Your task to perform on an android device: Go to calendar. Show me events next week Image 0: 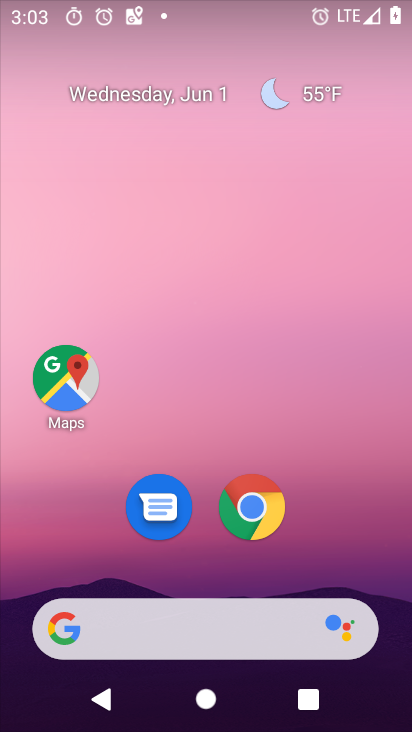
Step 0: drag from (362, 591) to (148, 19)
Your task to perform on an android device: Go to calendar. Show me events next week Image 1: 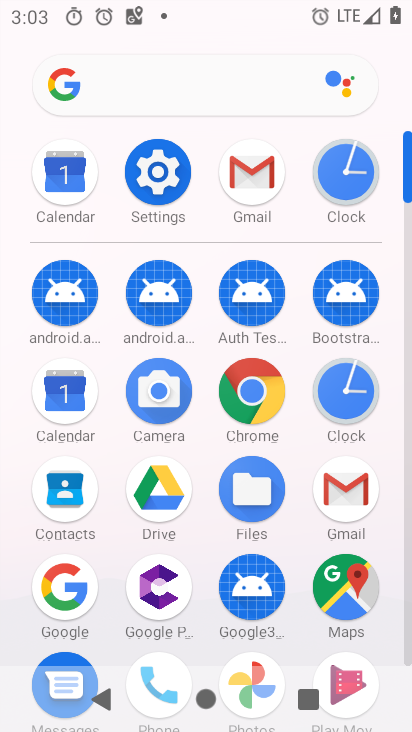
Step 1: click (59, 184)
Your task to perform on an android device: Go to calendar. Show me events next week Image 2: 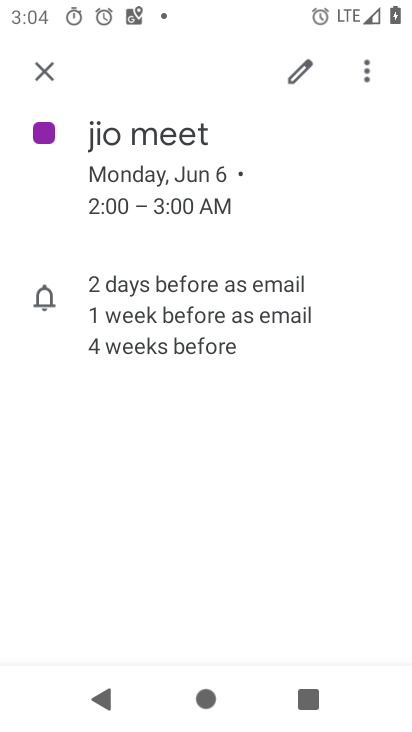
Step 2: click (51, 73)
Your task to perform on an android device: Go to calendar. Show me events next week Image 3: 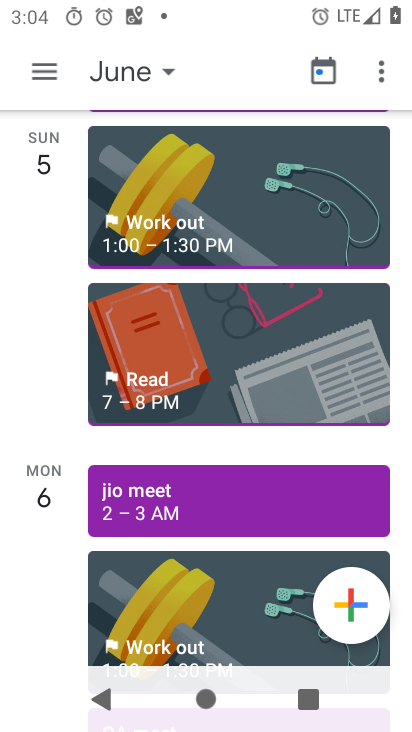
Step 3: click (47, 68)
Your task to perform on an android device: Go to calendar. Show me events next week Image 4: 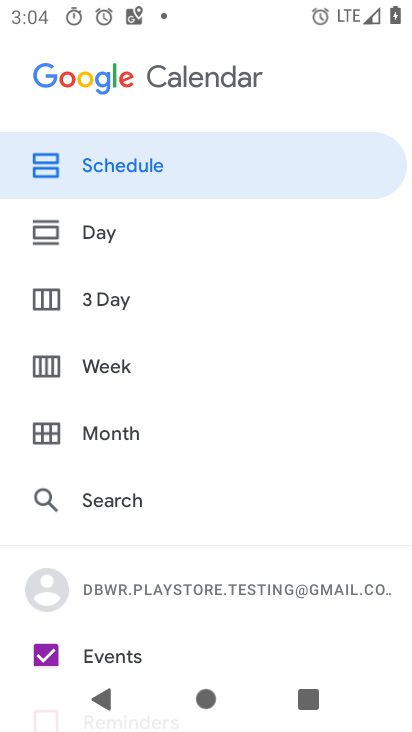
Step 4: drag from (132, 600) to (139, 296)
Your task to perform on an android device: Go to calendar. Show me events next week Image 5: 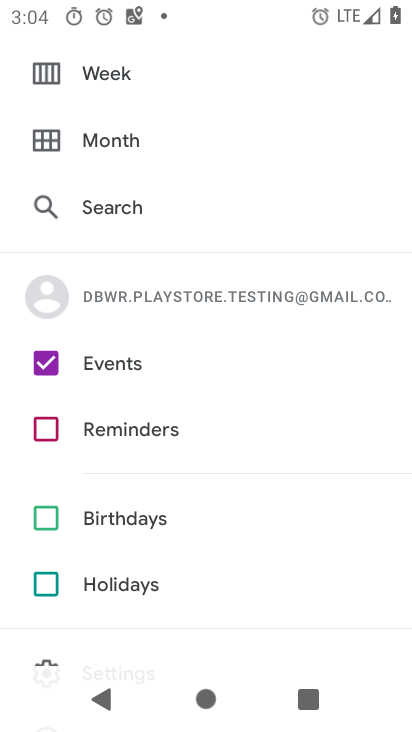
Step 5: drag from (151, 255) to (154, 509)
Your task to perform on an android device: Go to calendar. Show me events next week Image 6: 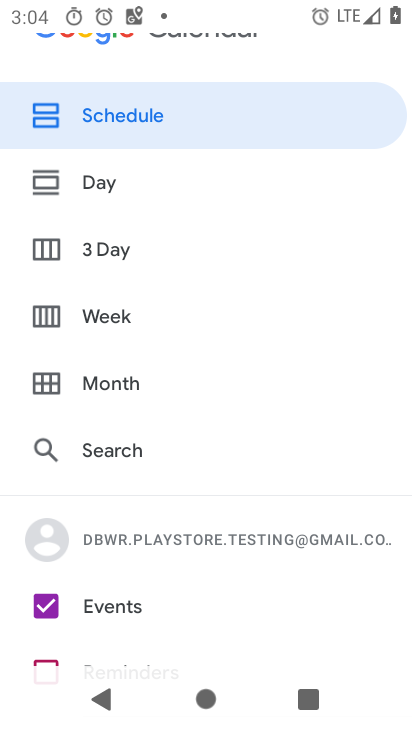
Step 6: click (74, 316)
Your task to perform on an android device: Go to calendar. Show me events next week Image 7: 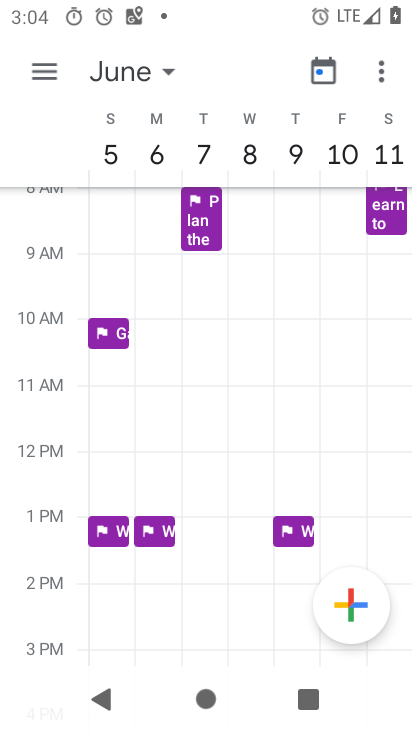
Step 7: click (322, 74)
Your task to perform on an android device: Go to calendar. Show me events next week Image 8: 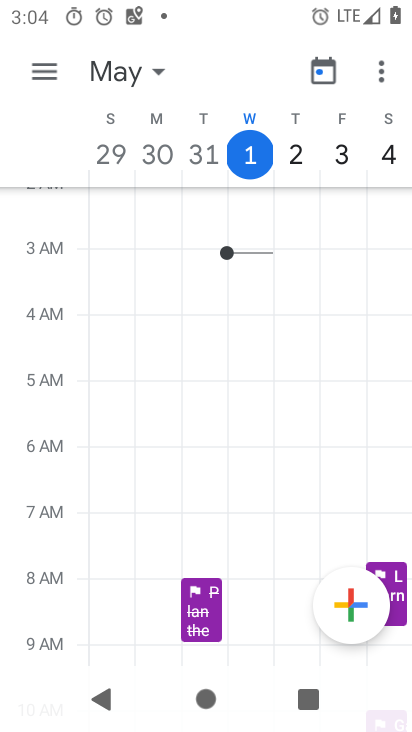
Step 8: task complete